Your task to perform on an android device: Open ESPN.com Image 0: 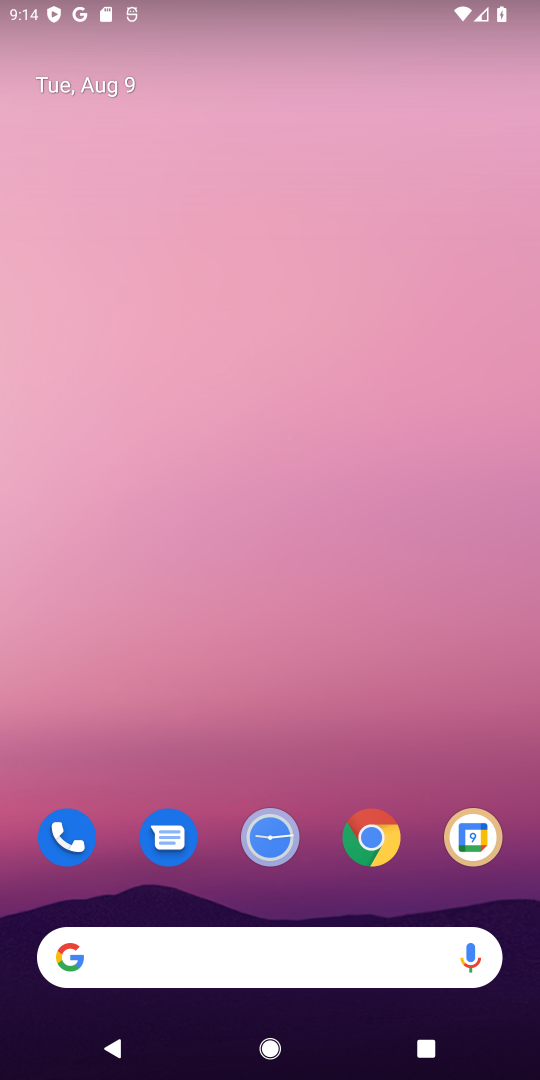
Step 0: click (372, 826)
Your task to perform on an android device: Open ESPN.com Image 1: 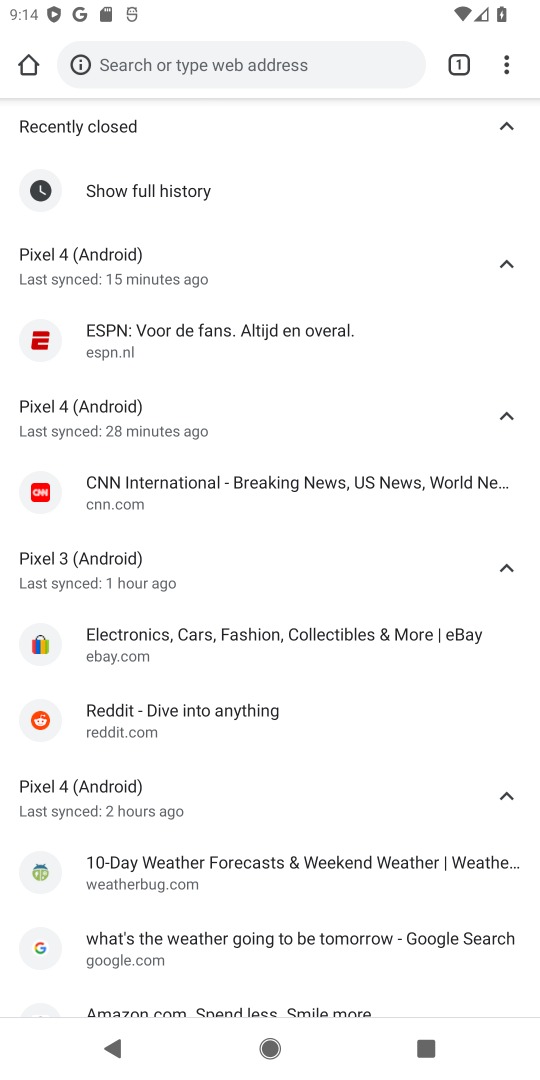
Step 1: click (507, 74)
Your task to perform on an android device: Open ESPN.com Image 2: 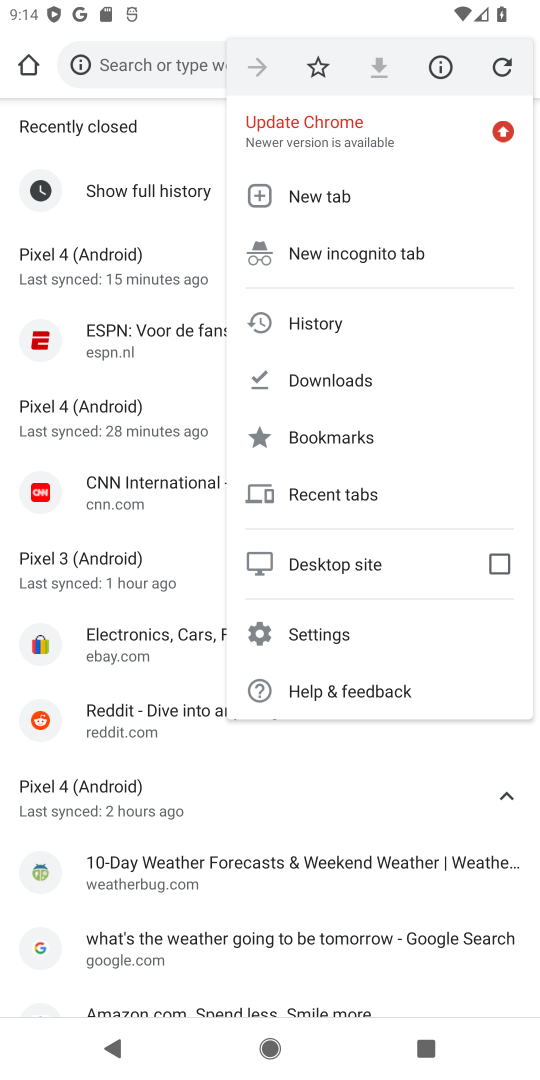
Step 2: click (314, 195)
Your task to perform on an android device: Open ESPN.com Image 3: 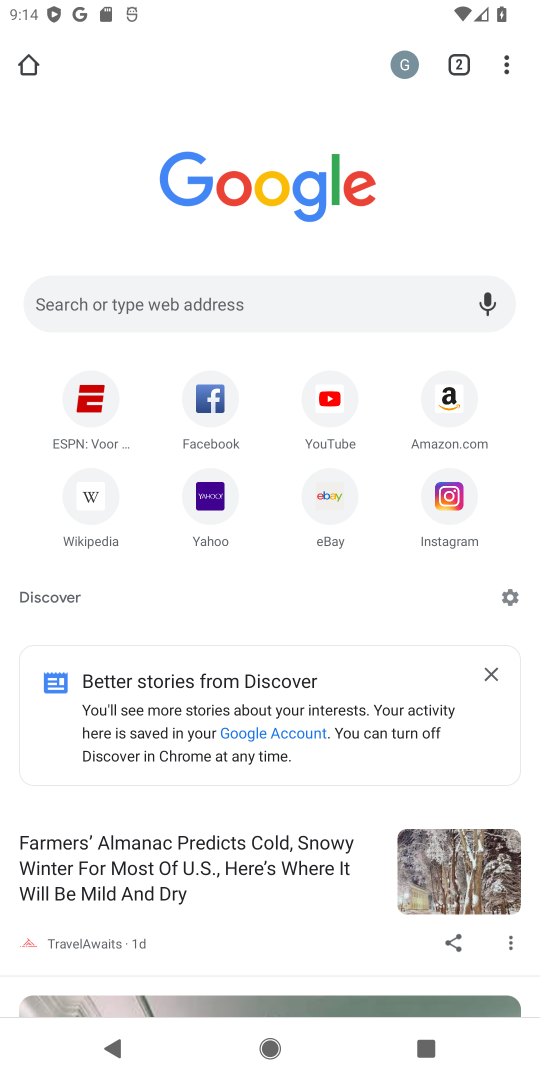
Step 3: click (91, 400)
Your task to perform on an android device: Open ESPN.com Image 4: 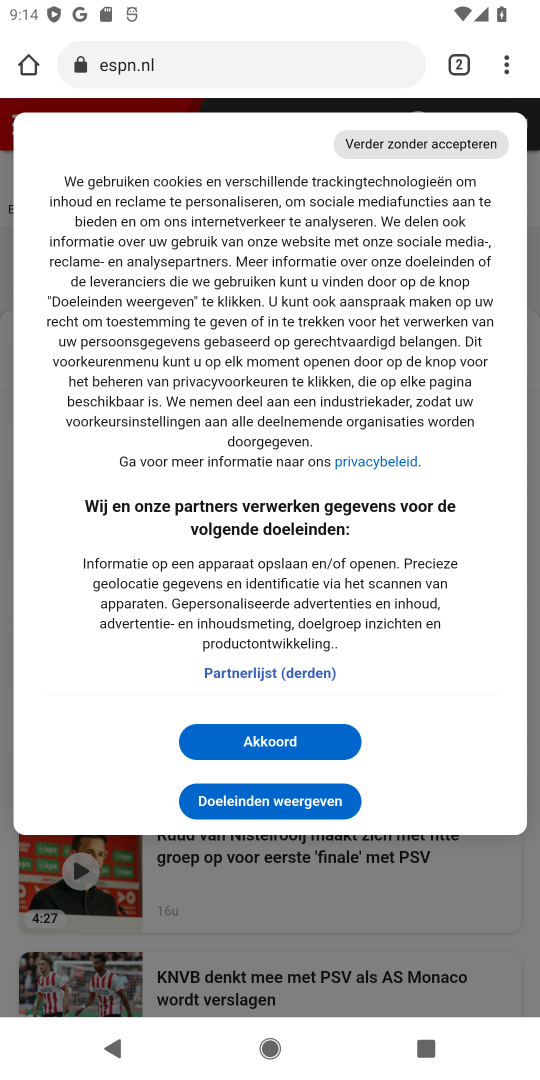
Step 4: click (259, 749)
Your task to perform on an android device: Open ESPN.com Image 5: 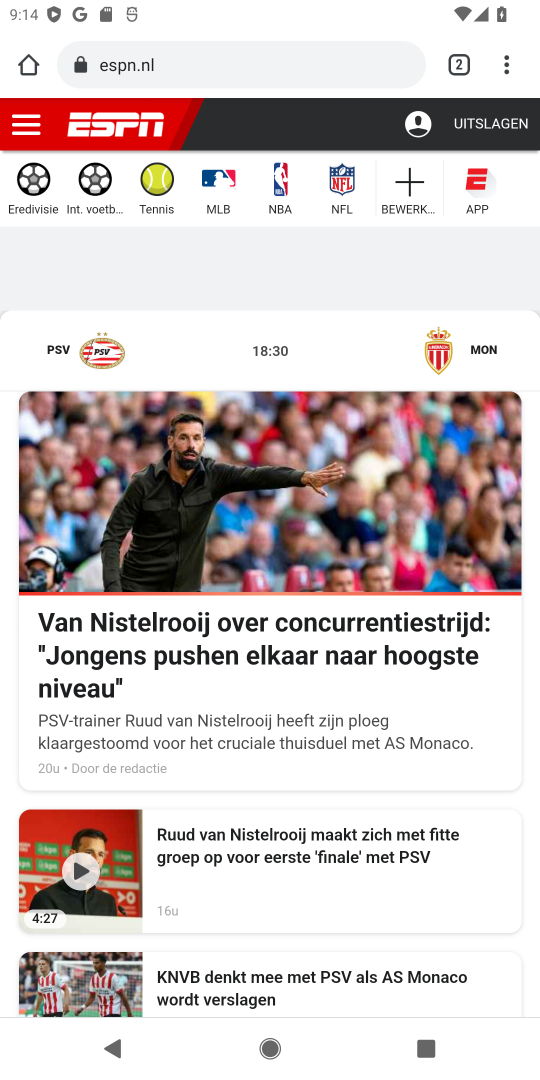
Step 5: task complete